Your task to perform on an android device: change notification settings in the gmail app Image 0: 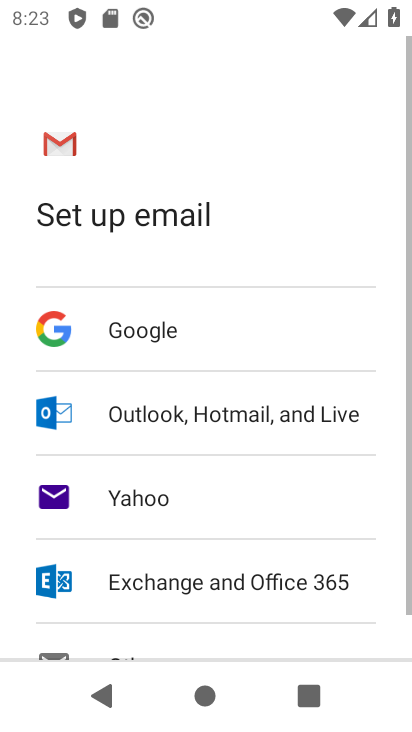
Step 0: press back button
Your task to perform on an android device: change notification settings in the gmail app Image 1: 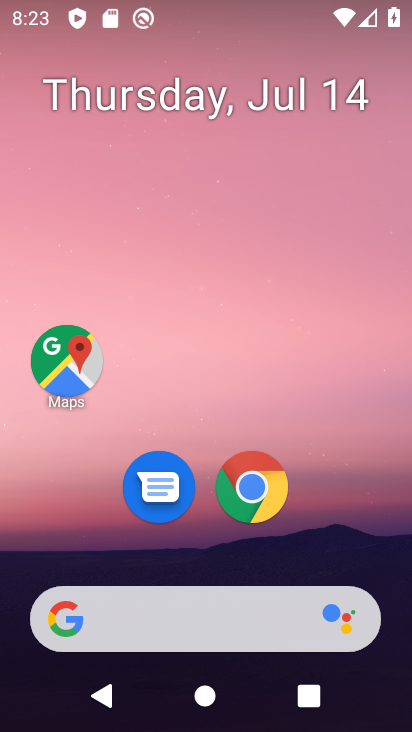
Step 1: drag from (204, 504) to (261, 13)
Your task to perform on an android device: change notification settings in the gmail app Image 2: 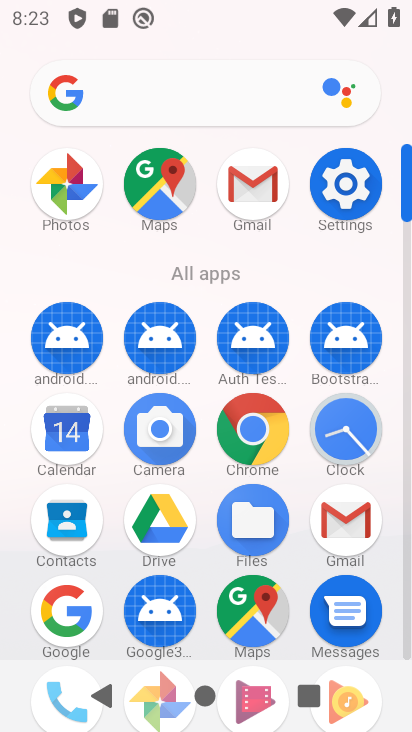
Step 2: click (238, 175)
Your task to perform on an android device: change notification settings in the gmail app Image 3: 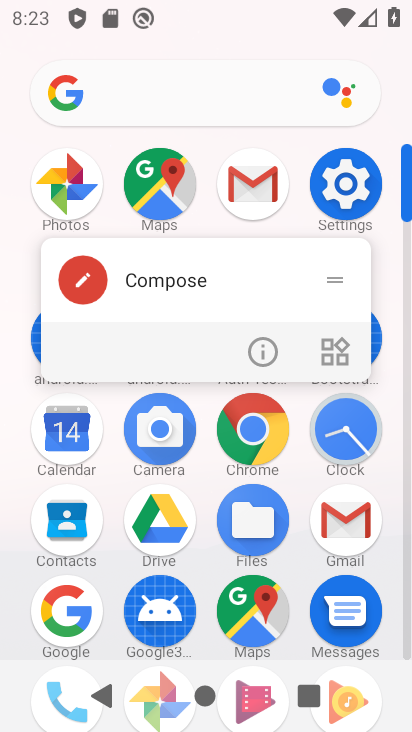
Step 3: click (258, 349)
Your task to perform on an android device: change notification settings in the gmail app Image 4: 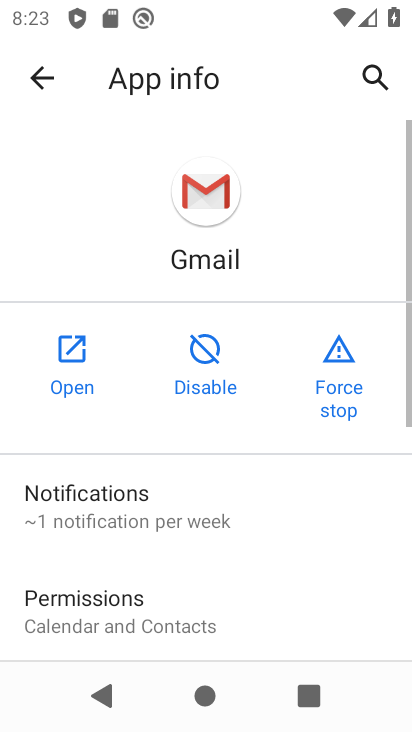
Step 4: click (131, 492)
Your task to perform on an android device: change notification settings in the gmail app Image 5: 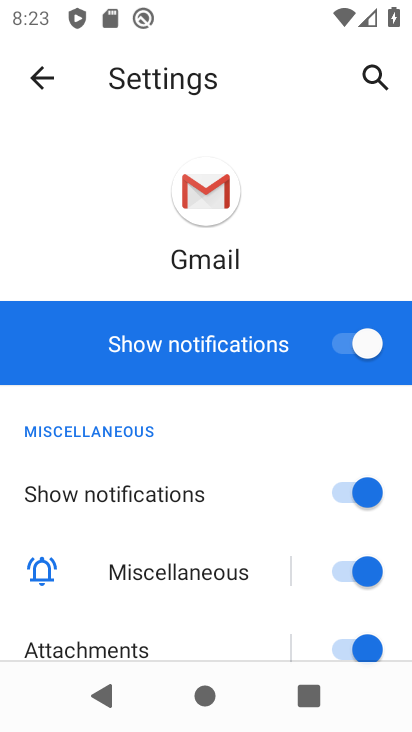
Step 5: click (368, 483)
Your task to perform on an android device: change notification settings in the gmail app Image 6: 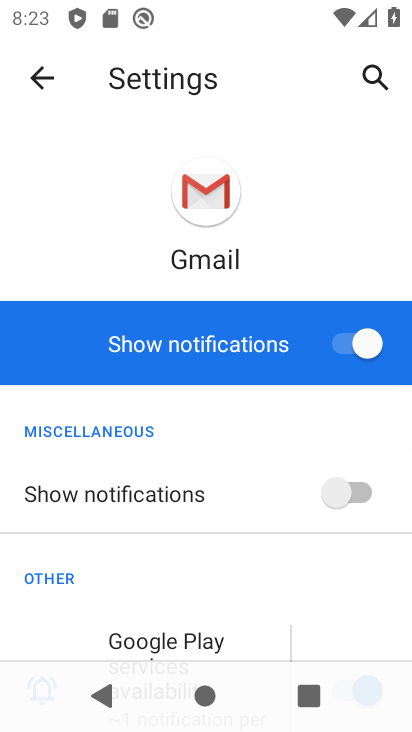
Step 6: task complete